Your task to perform on an android device: Open the Play Movies app and select the watchlist tab. Image 0: 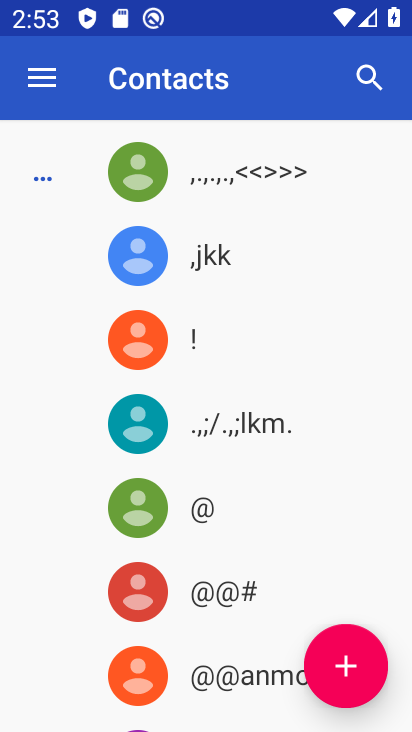
Step 0: press home button
Your task to perform on an android device: Open the Play Movies app and select the watchlist tab. Image 1: 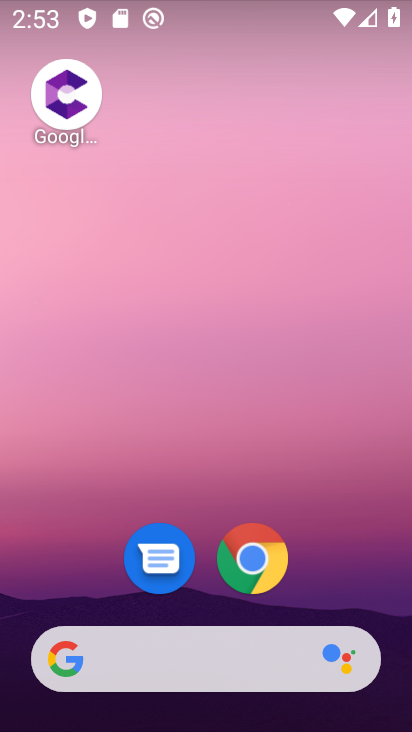
Step 1: drag from (376, 627) to (341, 9)
Your task to perform on an android device: Open the Play Movies app and select the watchlist tab. Image 2: 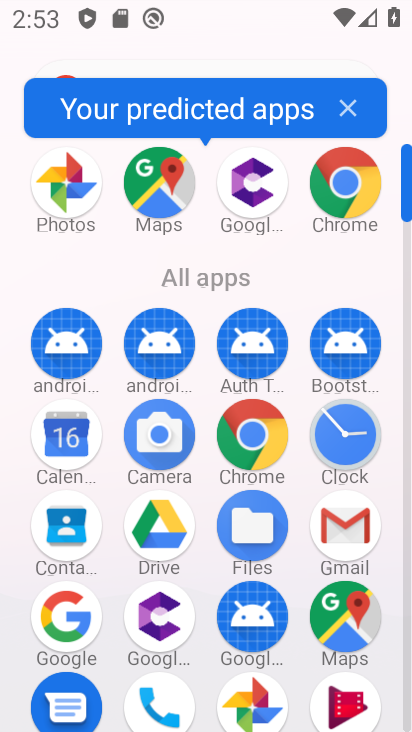
Step 2: click (356, 704)
Your task to perform on an android device: Open the Play Movies app and select the watchlist tab. Image 3: 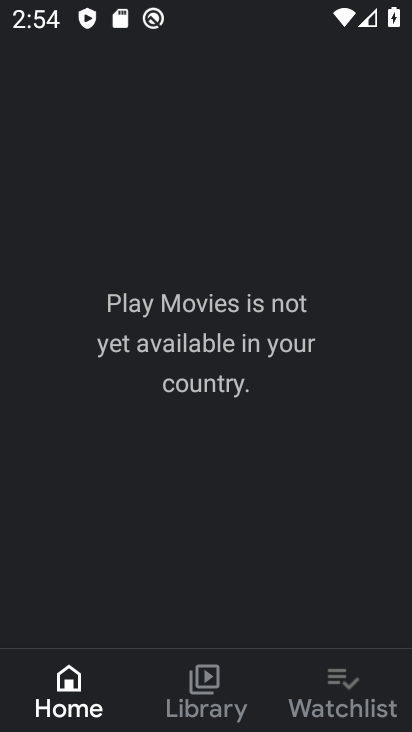
Step 3: click (351, 692)
Your task to perform on an android device: Open the Play Movies app and select the watchlist tab. Image 4: 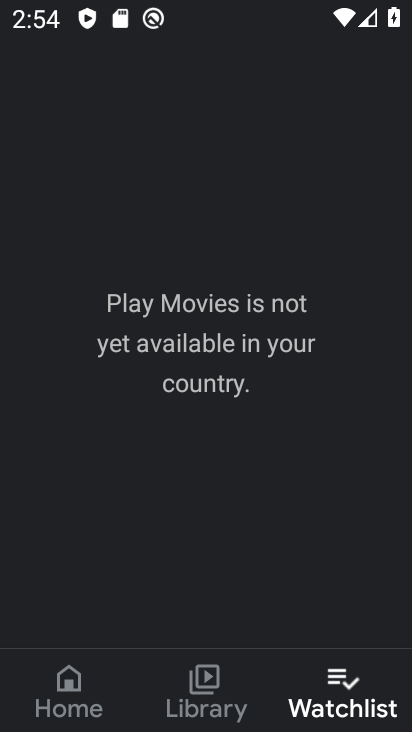
Step 4: task complete